Your task to perform on an android device: check out phone information Image 0: 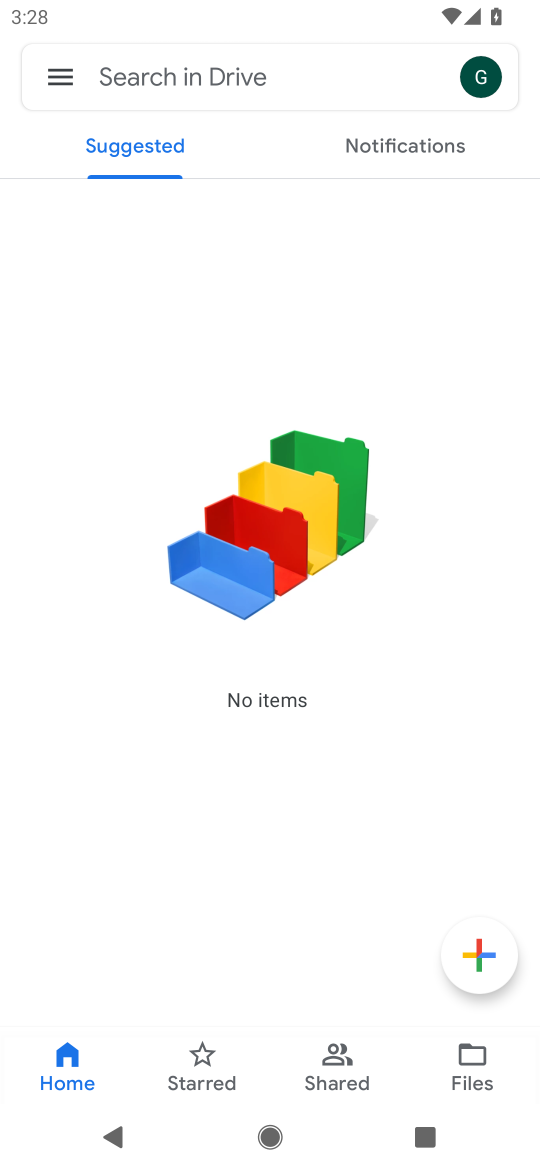
Step 0: press back button
Your task to perform on an android device: check out phone information Image 1: 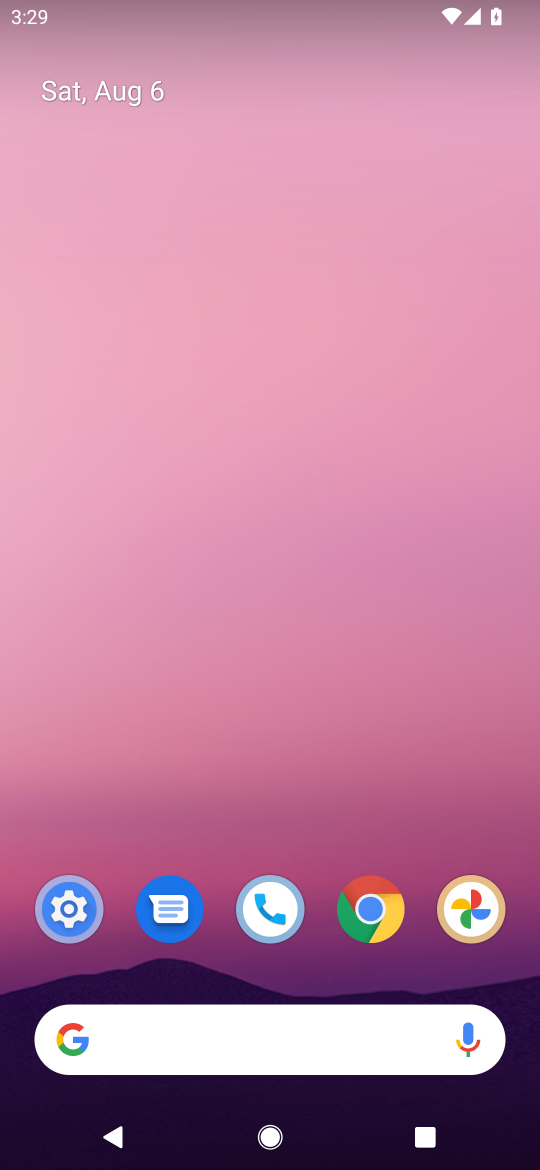
Step 1: drag from (327, 927) to (371, 167)
Your task to perform on an android device: check out phone information Image 2: 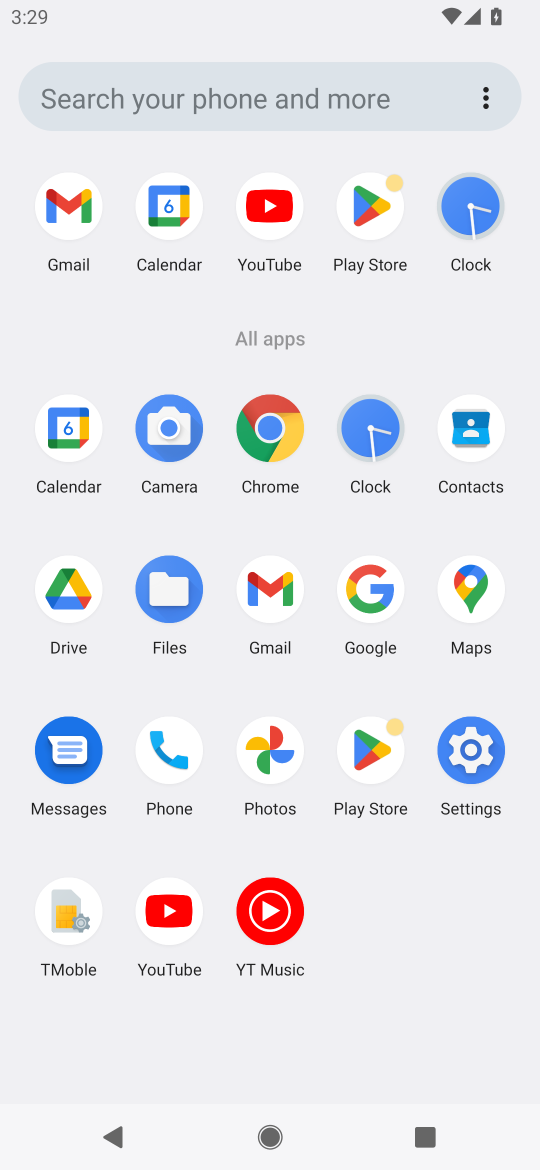
Step 2: click (460, 757)
Your task to perform on an android device: check out phone information Image 3: 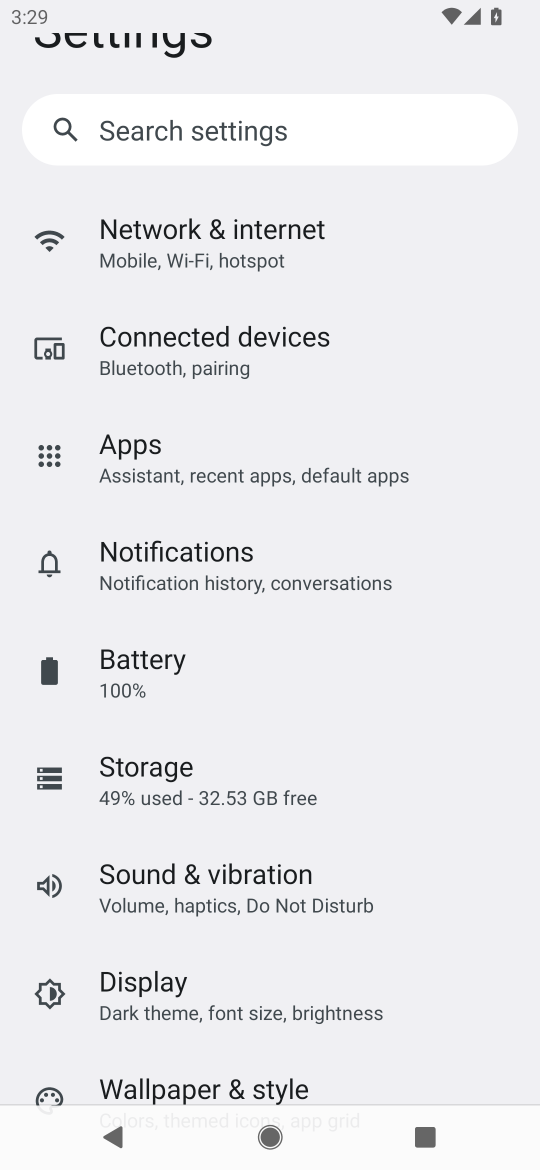
Step 3: drag from (211, 1003) to (425, 5)
Your task to perform on an android device: check out phone information Image 4: 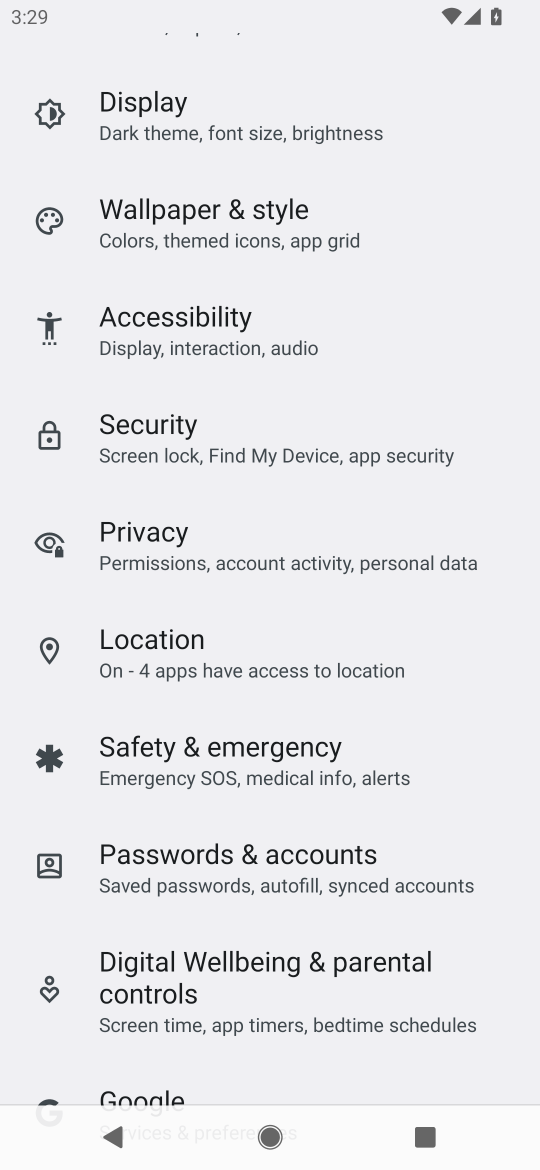
Step 4: drag from (199, 1050) to (403, 4)
Your task to perform on an android device: check out phone information Image 5: 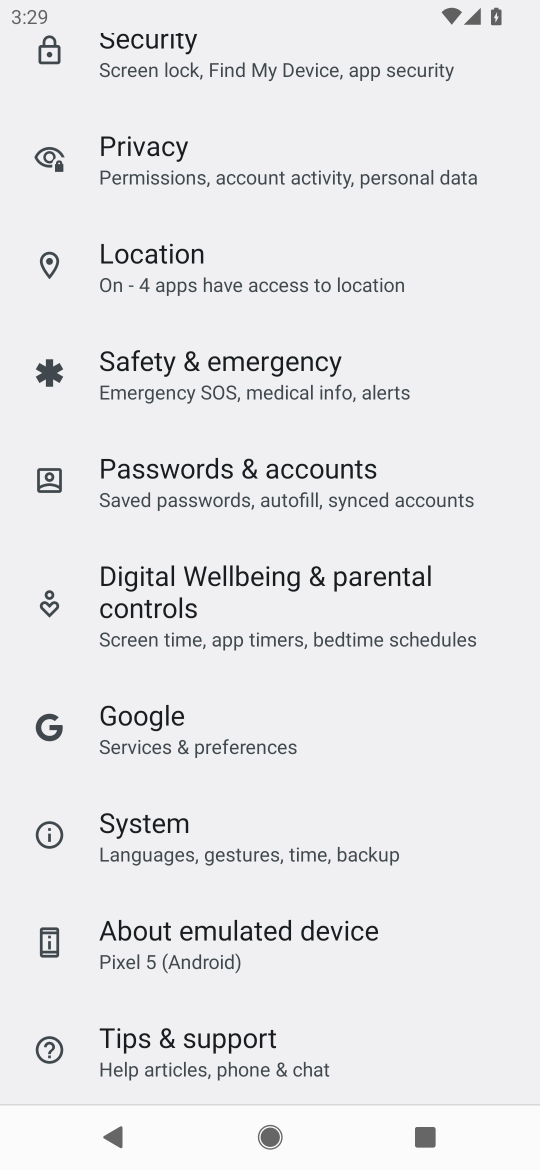
Step 5: drag from (246, 1043) to (422, 34)
Your task to perform on an android device: check out phone information Image 6: 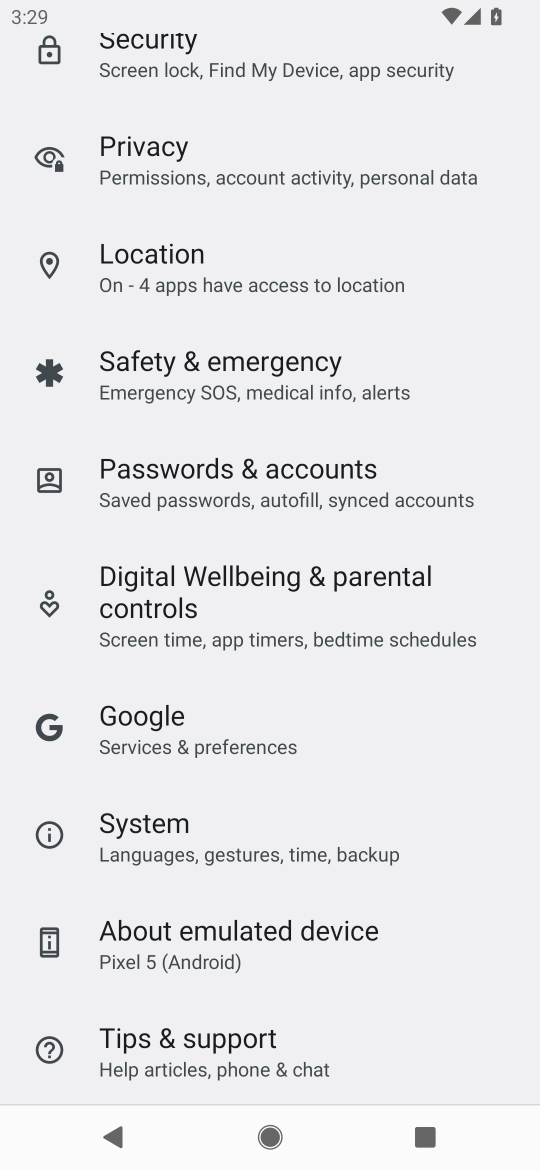
Step 6: click (195, 939)
Your task to perform on an android device: check out phone information Image 7: 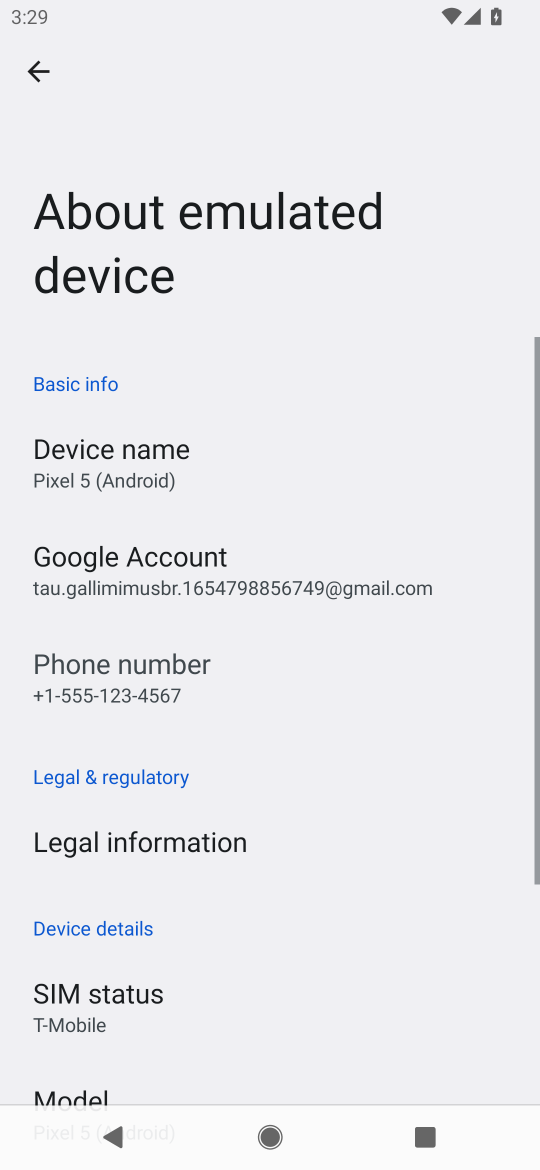
Step 7: task complete